Your task to perform on an android device: Go to settings Image 0: 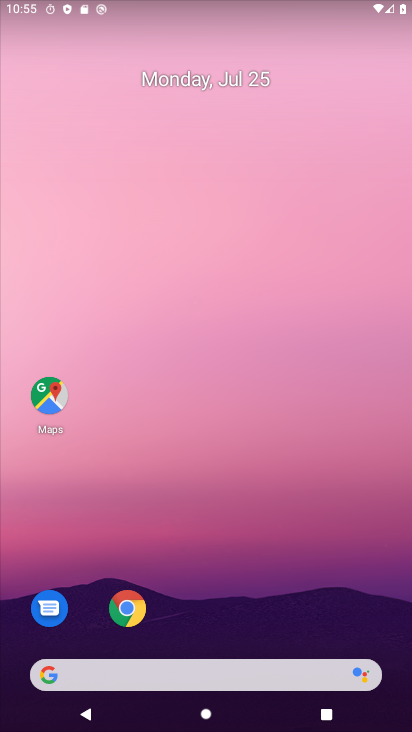
Step 0: drag from (211, 594) to (246, 0)
Your task to perform on an android device: Go to settings Image 1: 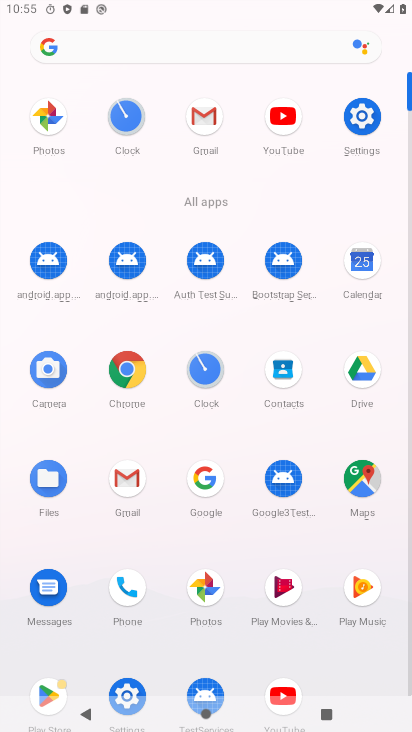
Step 1: click (358, 127)
Your task to perform on an android device: Go to settings Image 2: 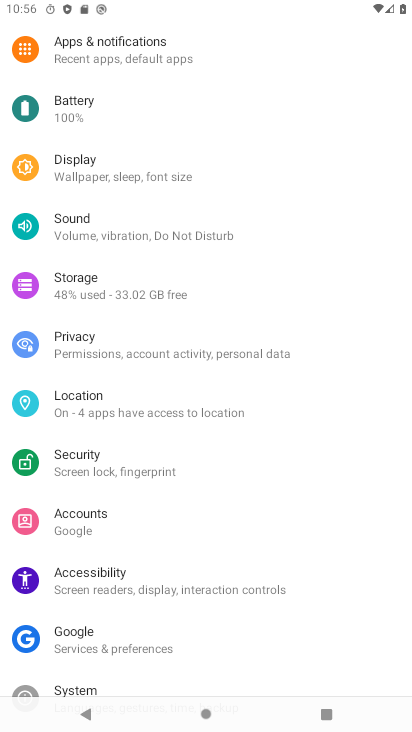
Step 2: task complete